Your task to perform on an android device: choose inbox layout in the gmail app Image 0: 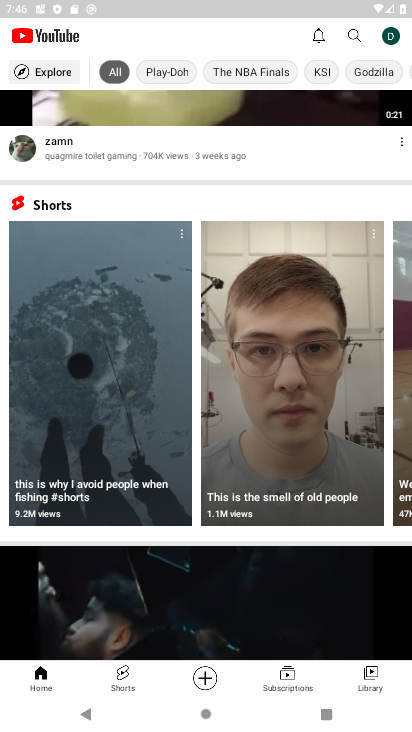
Step 0: press home button
Your task to perform on an android device: choose inbox layout in the gmail app Image 1: 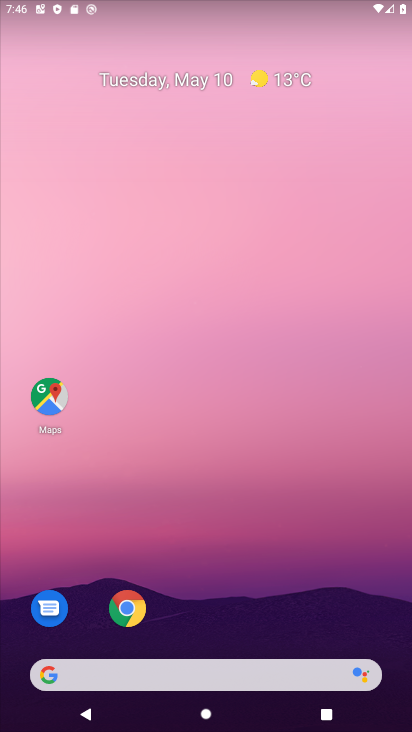
Step 1: drag from (229, 607) to (165, 174)
Your task to perform on an android device: choose inbox layout in the gmail app Image 2: 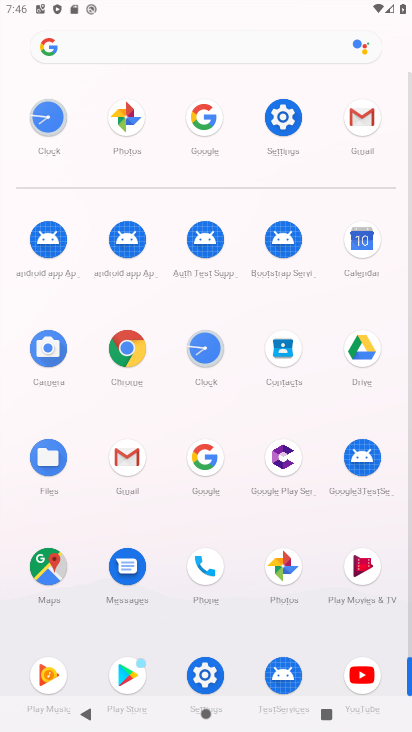
Step 2: click (368, 142)
Your task to perform on an android device: choose inbox layout in the gmail app Image 3: 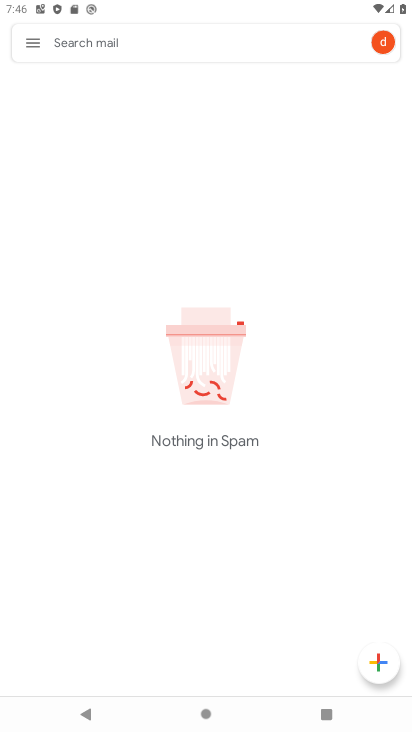
Step 3: click (156, 50)
Your task to perform on an android device: choose inbox layout in the gmail app Image 4: 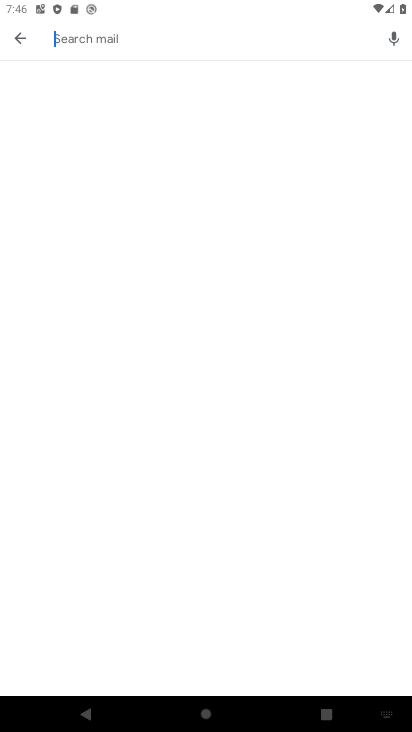
Step 4: click (18, 41)
Your task to perform on an android device: choose inbox layout in the gmail app Image 5: 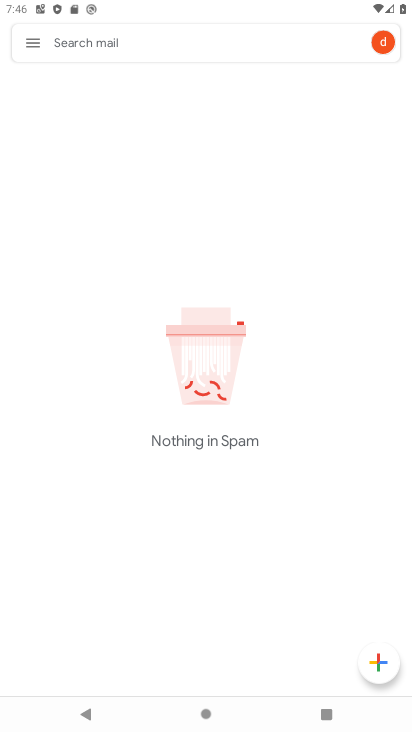
Step 5: click (40, 41)
Your task to perform on an android device: choose inbox layout in the gmail app Image 6: 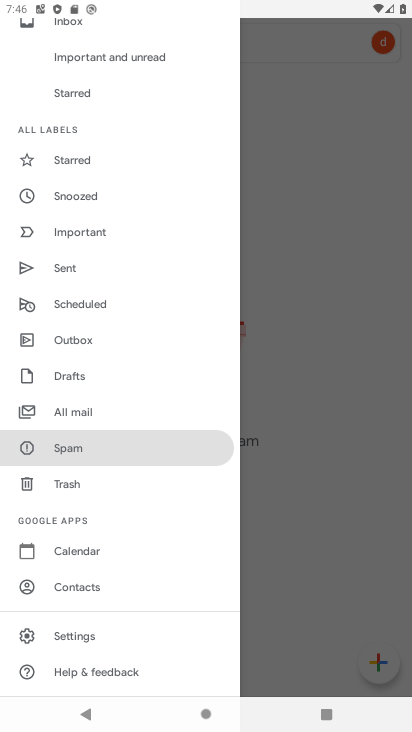
Step 6: click (93, 636)
Your task to perform on an android device: choose inbox layout in the gmail app Image 7: 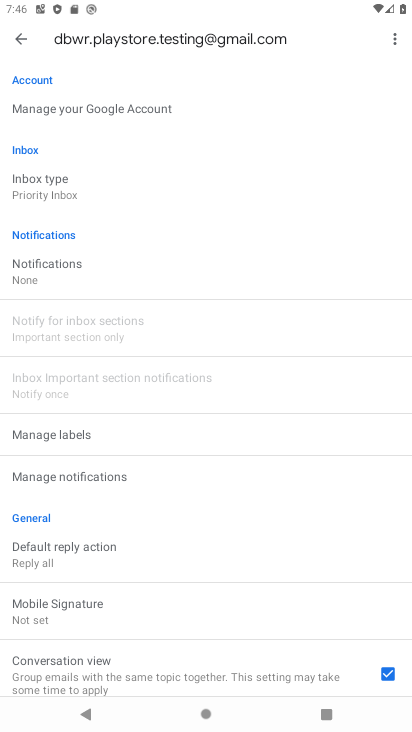
Step 7: click (60, 186)
Your task to perform on an android device: choose inbox layout in the gmail app Image 8: 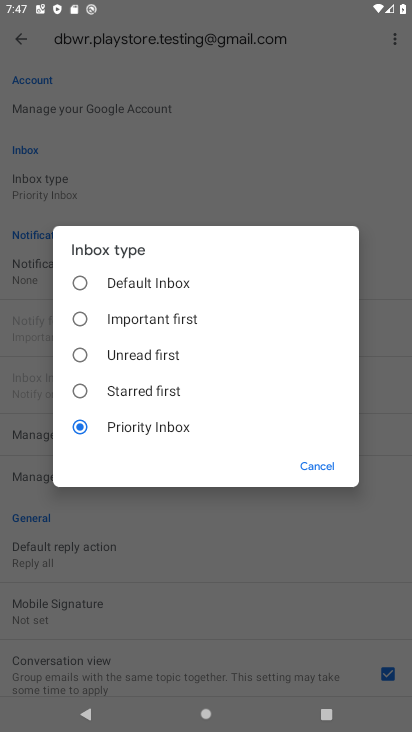
Step 8: click (81, 280)
Your task to perform on an android device: choose inbox layout in the gmail app Image 9: 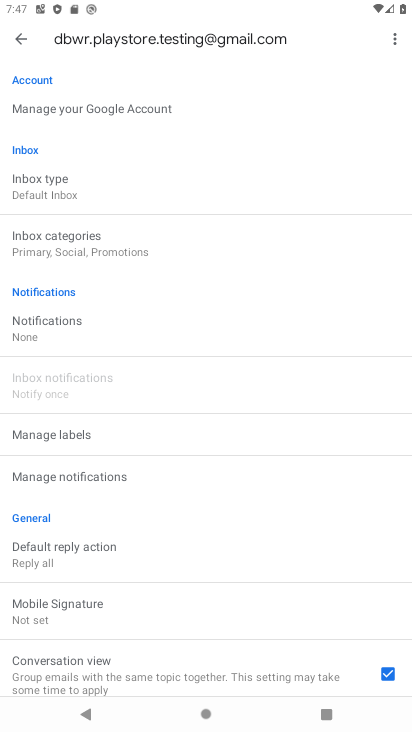
Step 9: task complete